Your task to perform on an android device: Open my contact list Image 0: 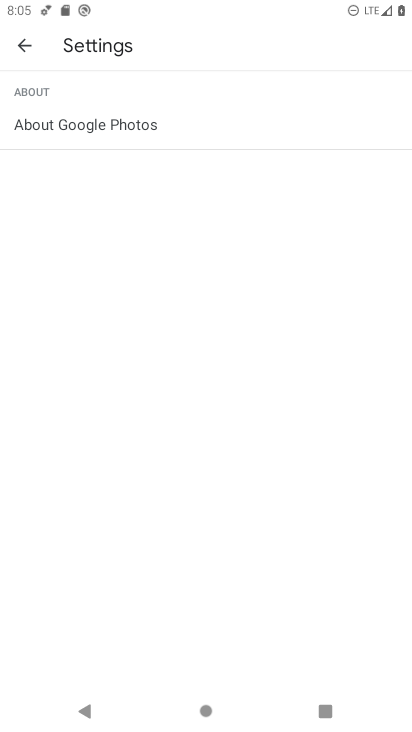
Step 0: press home button
Your task to perform on an android device: Open my contact list Image 1: 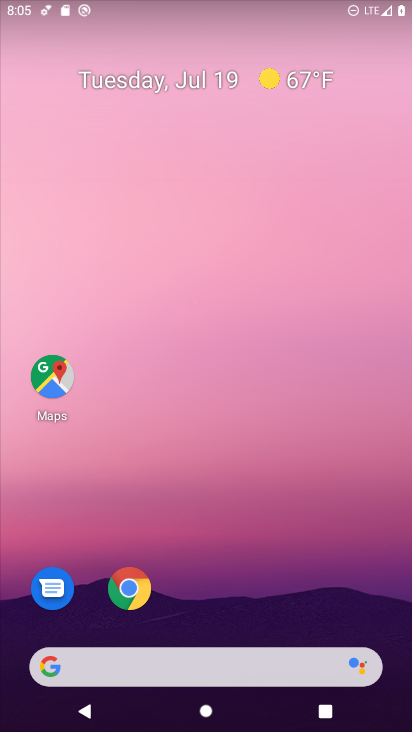
Step 1: drag from (350, 623) to (360, 108)
Your task to perform on an android device: Open my contact list Image 2: 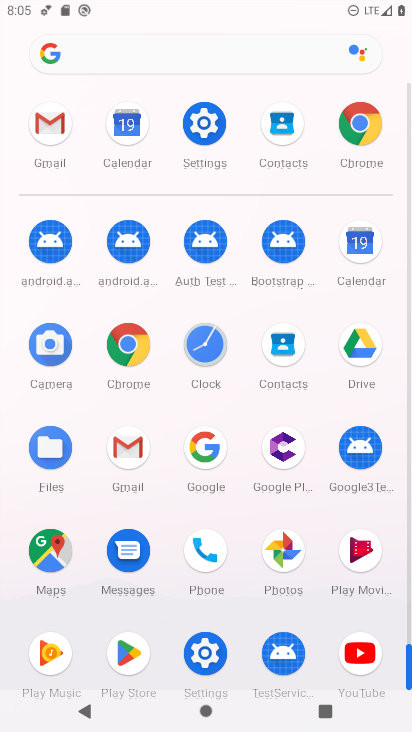
Step 2: click (288, 349)
Your task to perform on an android device: Open my contact list Image 3: 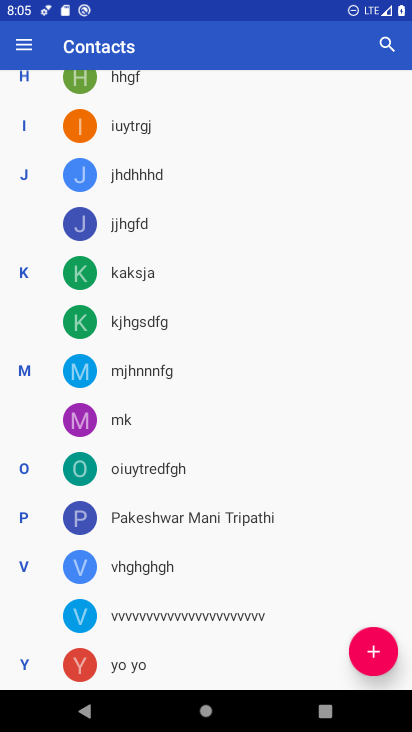
Step 3: task complete